Your task to perform on an android device: turn off data saver in the chrome app Image 0: 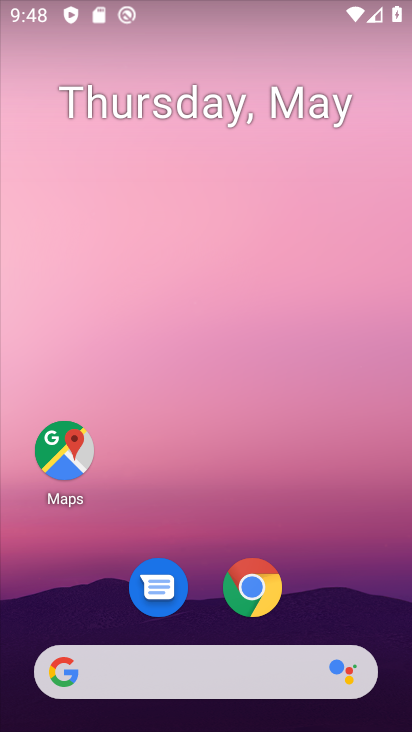
Step 0: click (263, 595)
Your task to perform on an android device: turn off data saver in the chrome app Image 1: 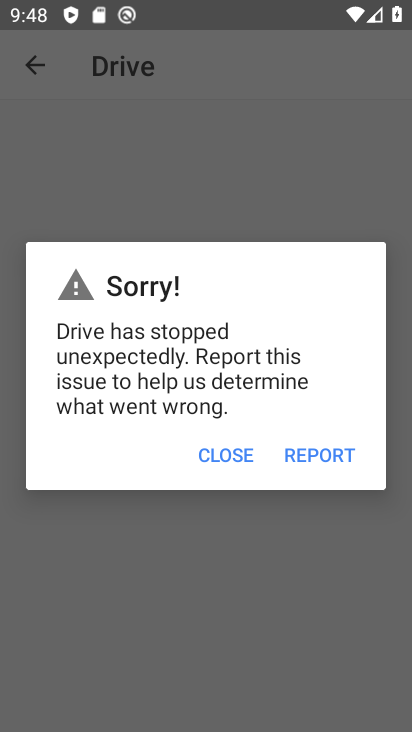
Step 1: click (228, 462)
Your task to perform on an android device: turn off data saver in the chrome app Image 2: 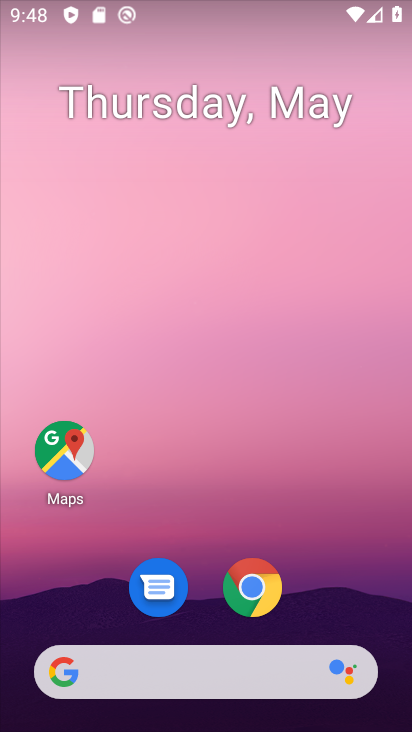
Step 2: click (254, 585)
Your task to perform on an android device: turn off data saver in the chrome app Image 3: 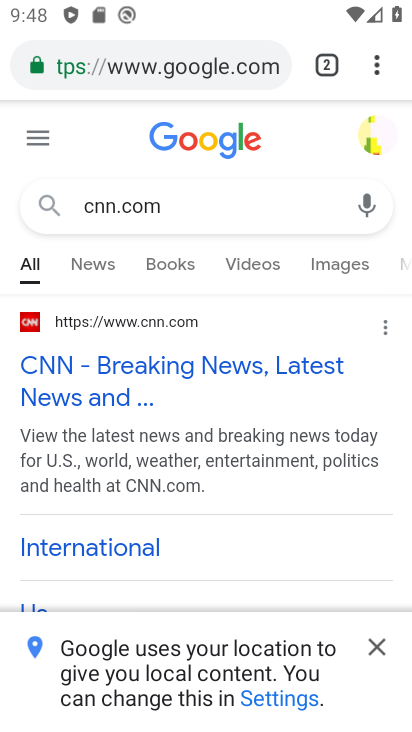
Step 3: click (373, 68)
Your task to perform on an android device: turn off data saver in the chrome app Image 4: 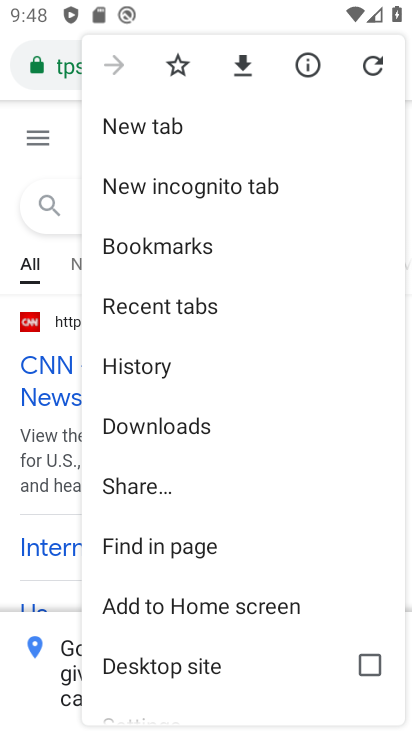
Step 4: drag from (243, 494) to (191, 236)
Your task to perform on an android device: turn off data saver in the chrome app Image 5: 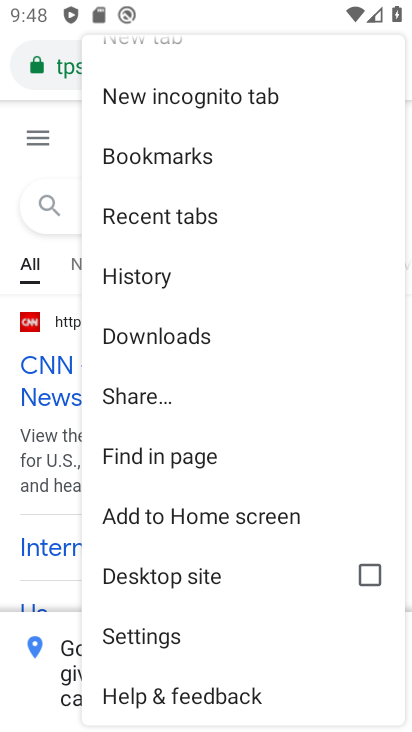
Step 5: click (139, 635)
Your task to perform on an android device: turn off data saver in the chrome app Image 6: 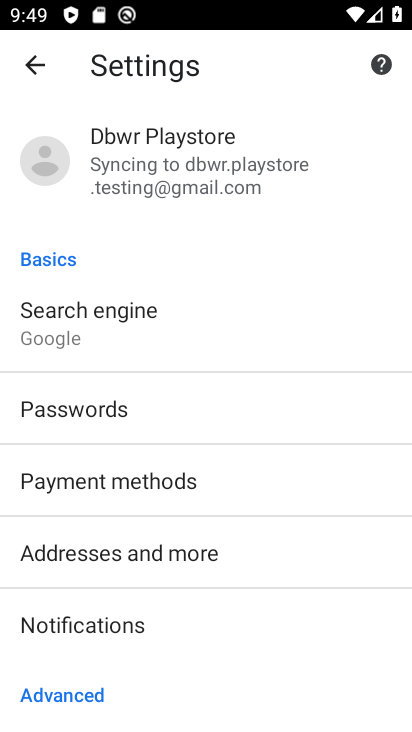
Step 6: drag from (248, 699) to (239, 235)
Your task to perform on an android device: turn off data saver in the chrome app Image 7: 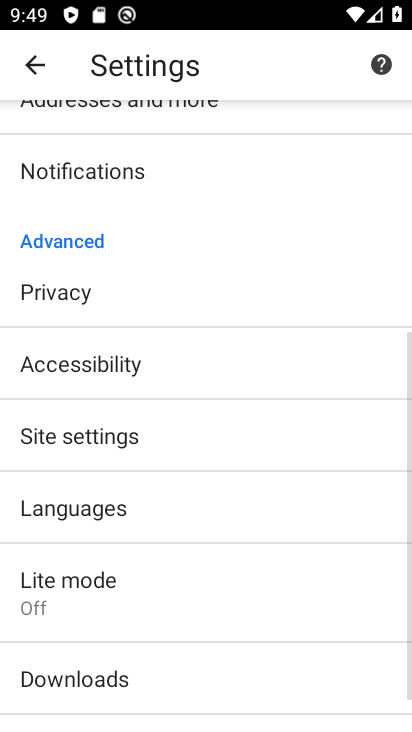
Step 7: click (239, 235)
Your task to perform on an android device: turn off data saver in the chrome app Image 8: 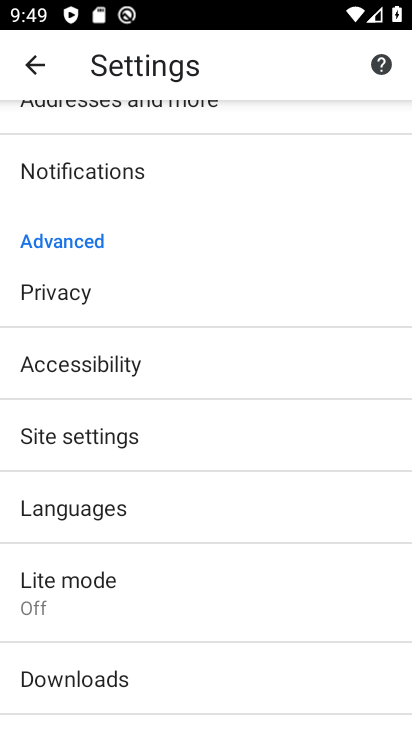
Step 8: click (120, 586)
Your task to perform on an android device: turn off data saver in the chrome app Image 9: 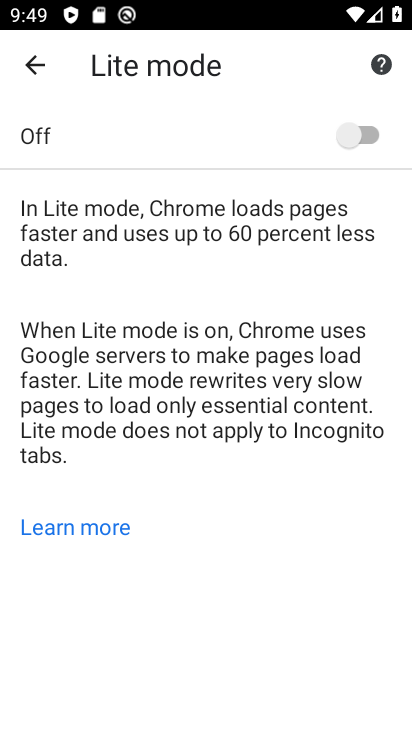
Step 9: task complete